Your task to perform on an android device: Open location settings Image 0: 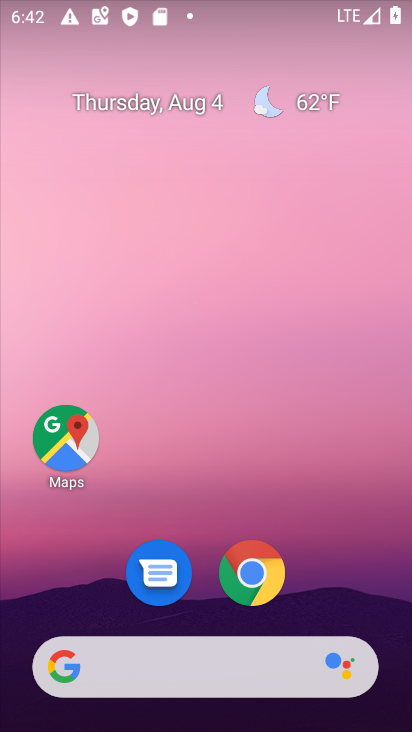
Step 0: drag from (203, 616) to (332, 26)
Your task to perform on an android device: Open location settings Image 1: 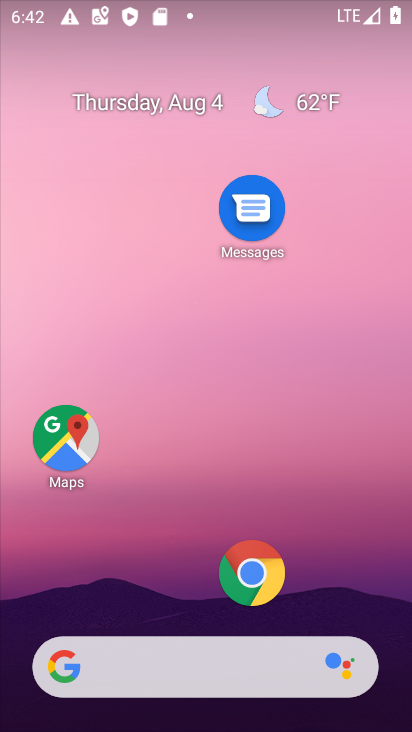
Step 1: drag from (202, 591) to (195, 227)
Your task to perform on an android device: Open location settings Image 2: 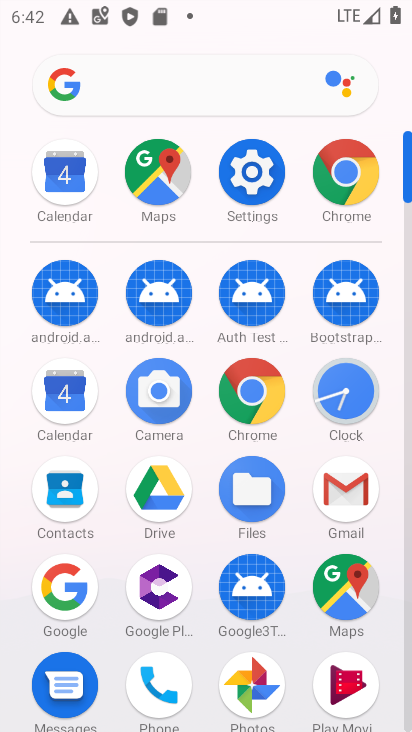
Step 2: click (261, 191)
Your task to perform on an android device: Open location settings Image 3: 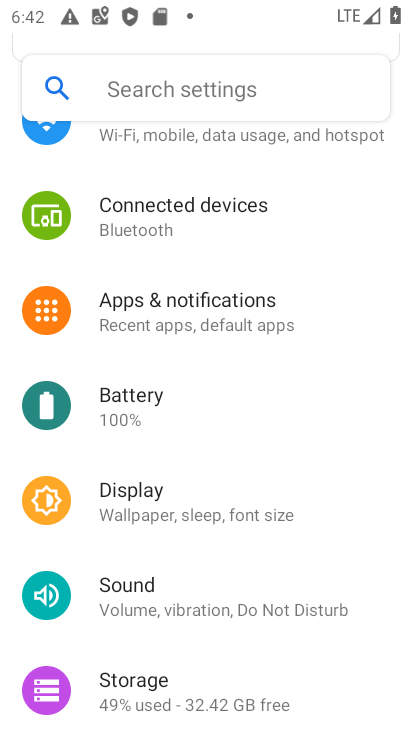
Step 3: drag from (368, 656) to (372, 237)
Your task to perform on an android device: Open location settings Image 4: 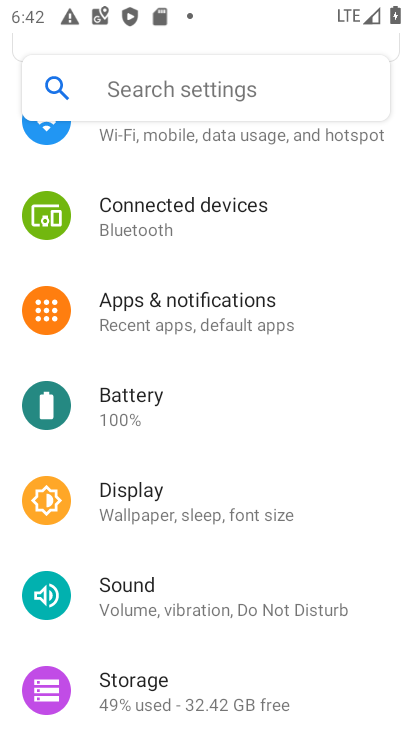
Step 4: drag from (317, 639) to (332, 187)
Your task to perform on an android device: Open location settings Image 5: 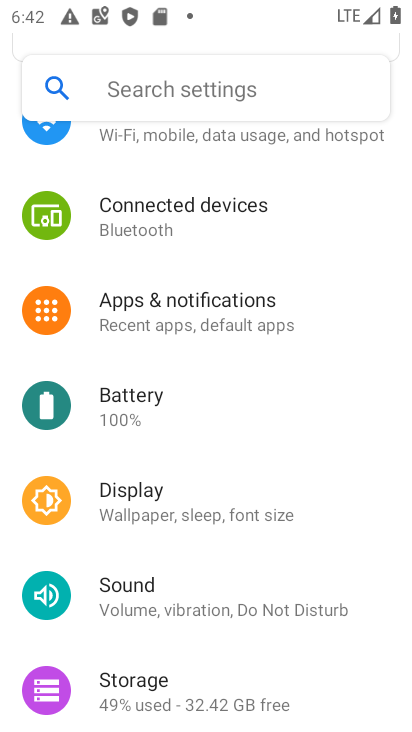
Step 5: drag from (248, 563) to (307, 174)
Your task to perform on an android device: Open location settings Image 6: 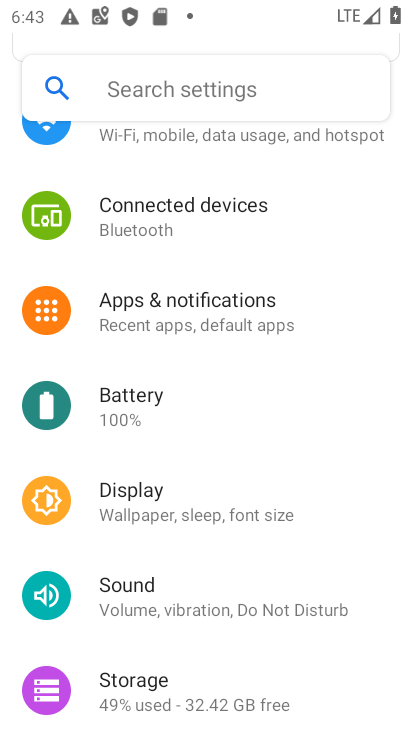
Step 6: drag from (286, 643) to (231, 221)
Your task to perform on an android device: Open location settings Image 7: 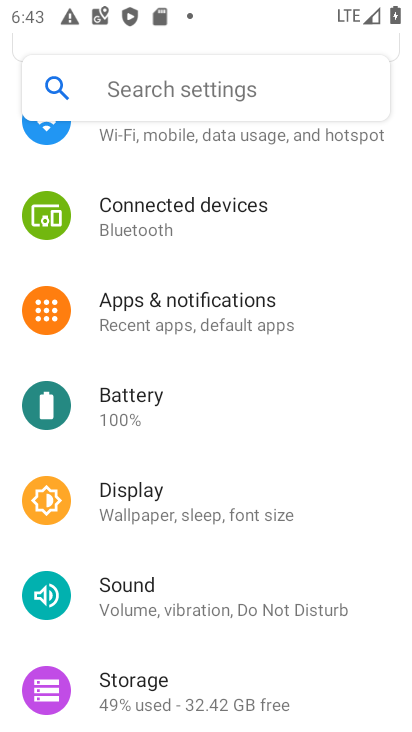
Step 7: drag from (332, 572) to (0, 196)
Your task to perform on an android device: Open location settings Image 8: 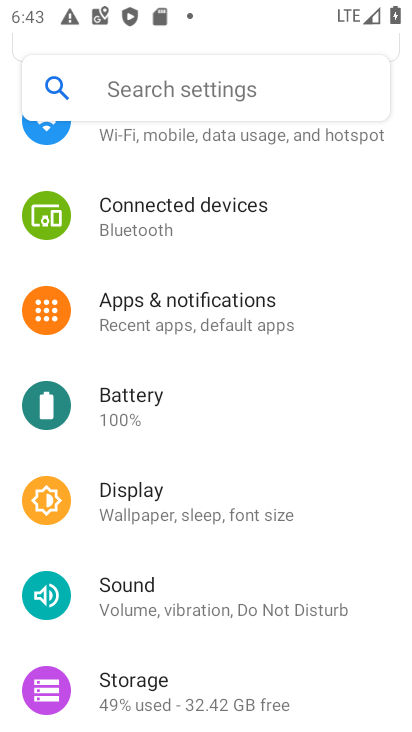
Step 8: click (235, 86)
Your task to perform on an android device: Open location settings Image 9: 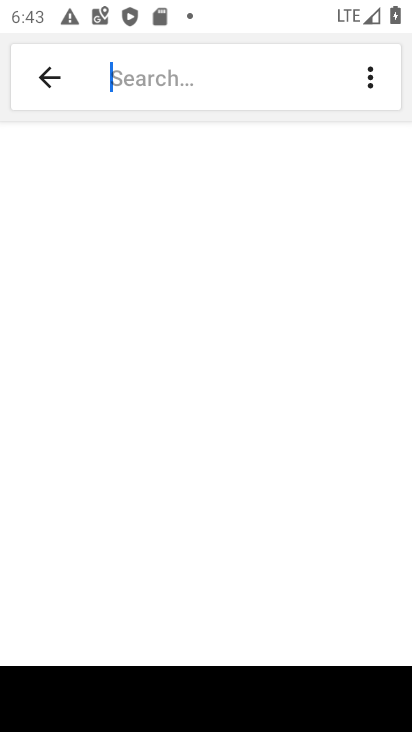
Step 9: type "location"
Your task to perform on an android device: Open location settings Image 10: 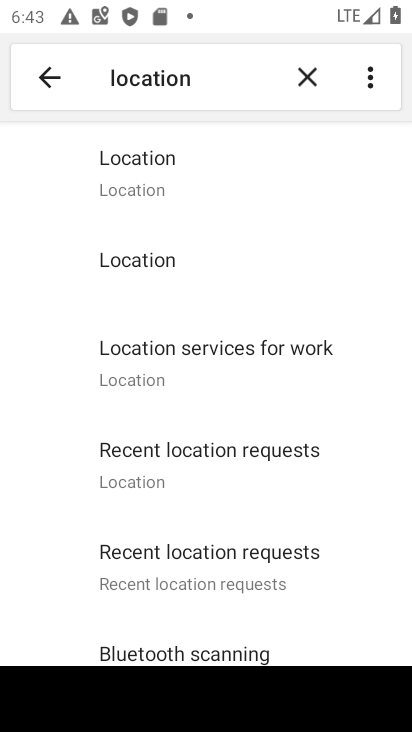
Step 10: click (154, 176)
Your task to perform on an android device: Open location settings Image 11: 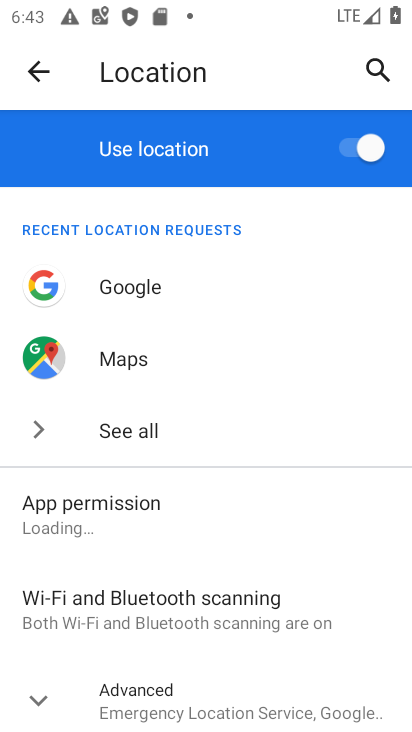
Step 11: task complete